Your task to perform on an android device: toggle location history Image 0: 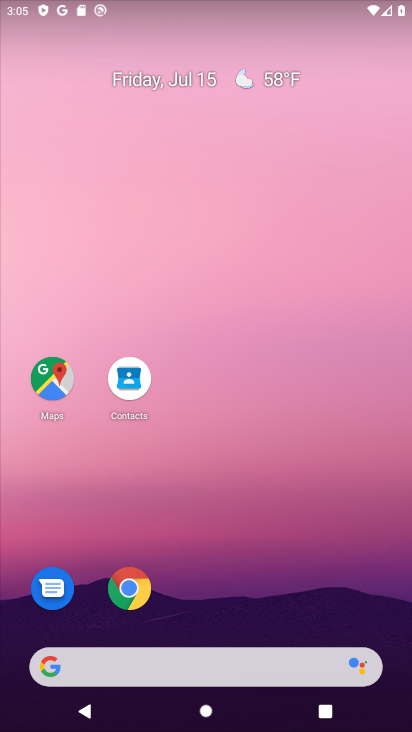
Step 0: drag from (311, 601) to (247, 155)
Your task to perform on an android device: toggle location history Image 1: 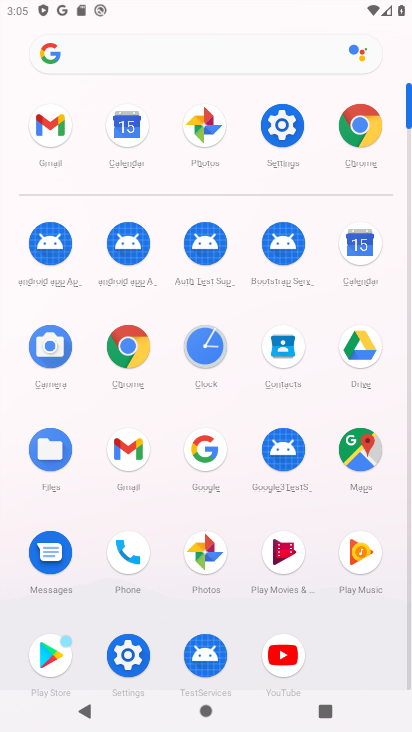
Step 1: click (293, 128)
Your task to perform on an android device: toggle location history Image 2: 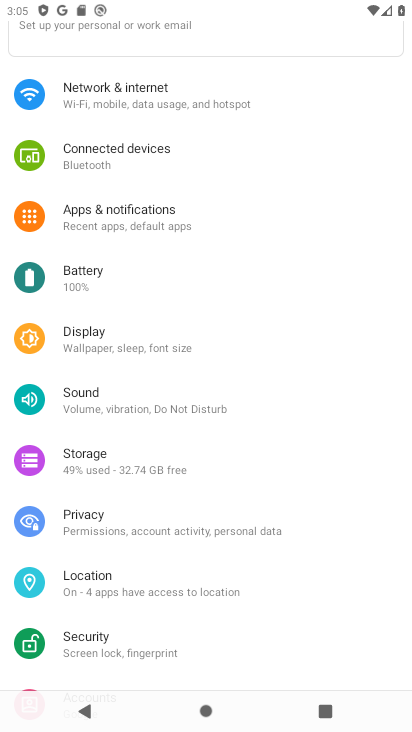
Step 2: click (161, 600)
Your task to perform on an android device: toggle location history Image 3: 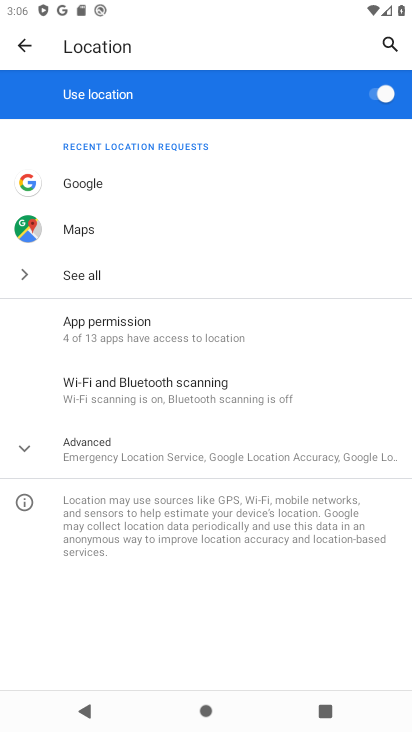
Step 3: click (171, 459)
Your task to perform on an android device: toggle location history Image 4: 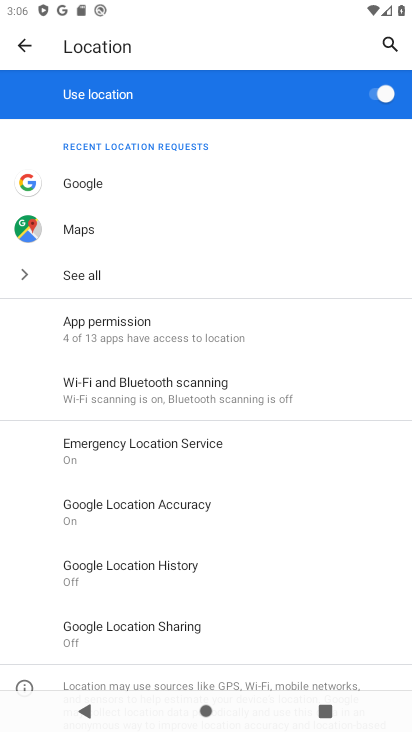
Step 4: click (183, 561)
Your task to perform on an android device: toggle location history Image 5: 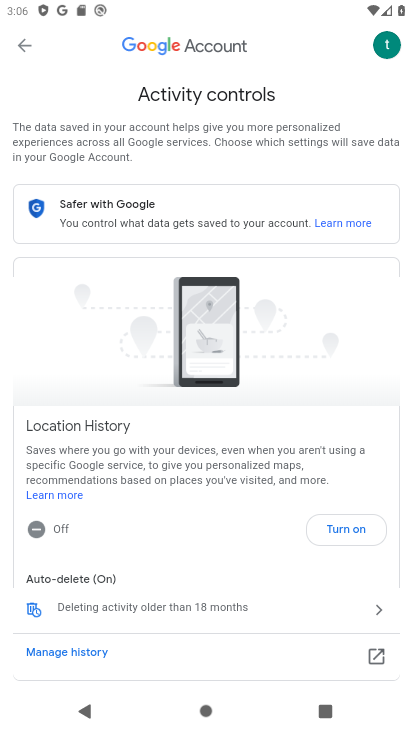
Step 5: click (363, 523)
Your task to perform on an android device: toggle location history Image 6: 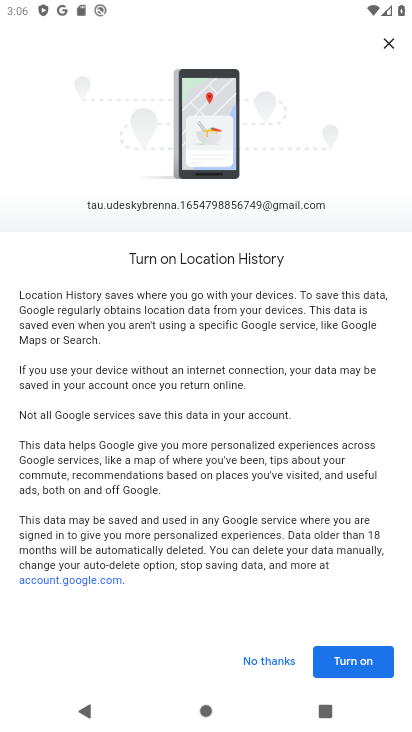
Step 6: click (322, 659)
Your task to perform on an android device: toggle location history Image 7: 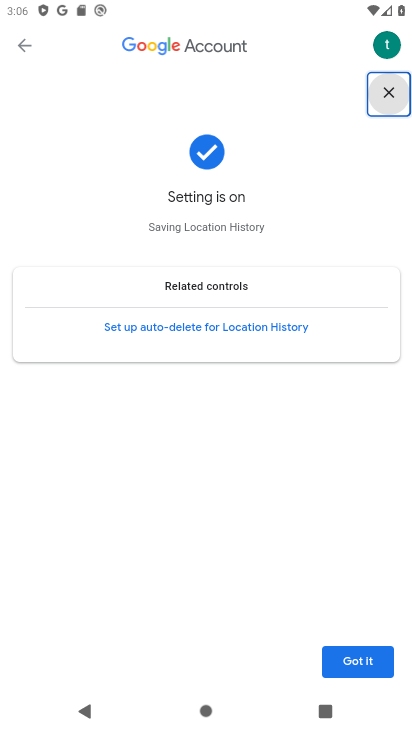
Step 7: task complete